Your task to perform on an android device: see tabs open on other devices in the chrome app Image 0: 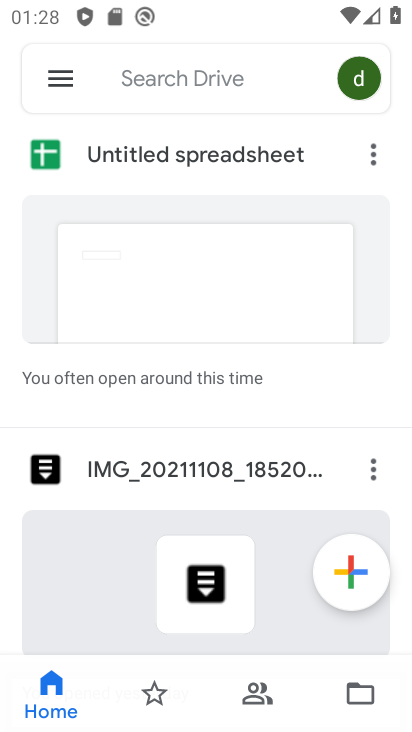
Step 0: press back button
Your task to perform on an android device: see tabs open on other devices in the chrome app Image 1: 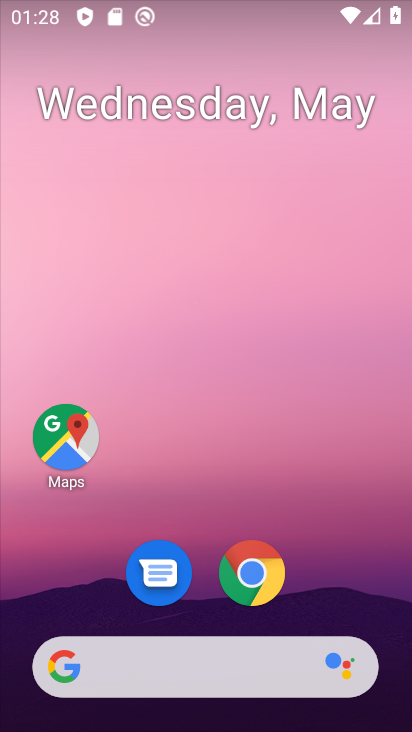
Step 1: click (251, 577)
Your task to perform on an android device: see tabs open on other devices in the chrome app Image 2: 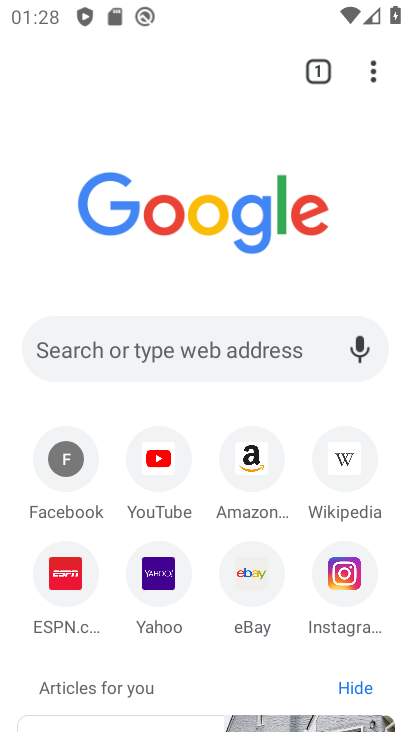
Step 2: click (373, 68)
Your task to perform on an android device: see tabs open on other devices in the chrome app Image 3: 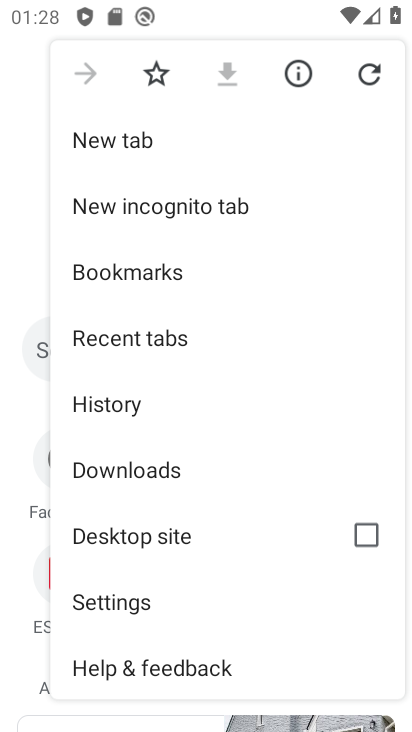
Step 3: click (175, 345)
Your task to perform on an android device: see tabs open on other devices in the chrome app Image 4: 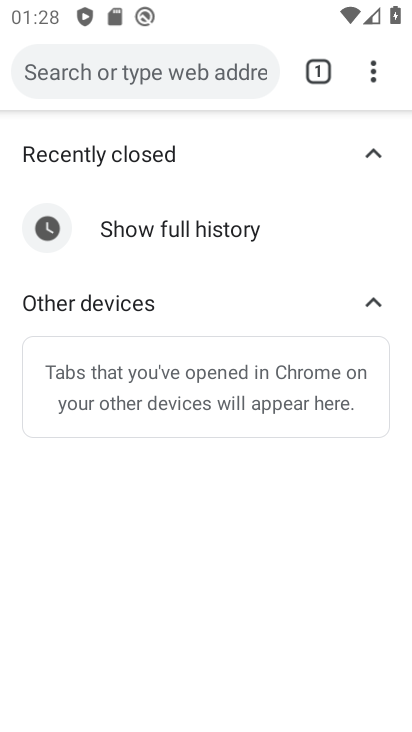
Step 4: task complete